Your task to perform on an android device: Open calendar and show me the second week of next month Image 0: 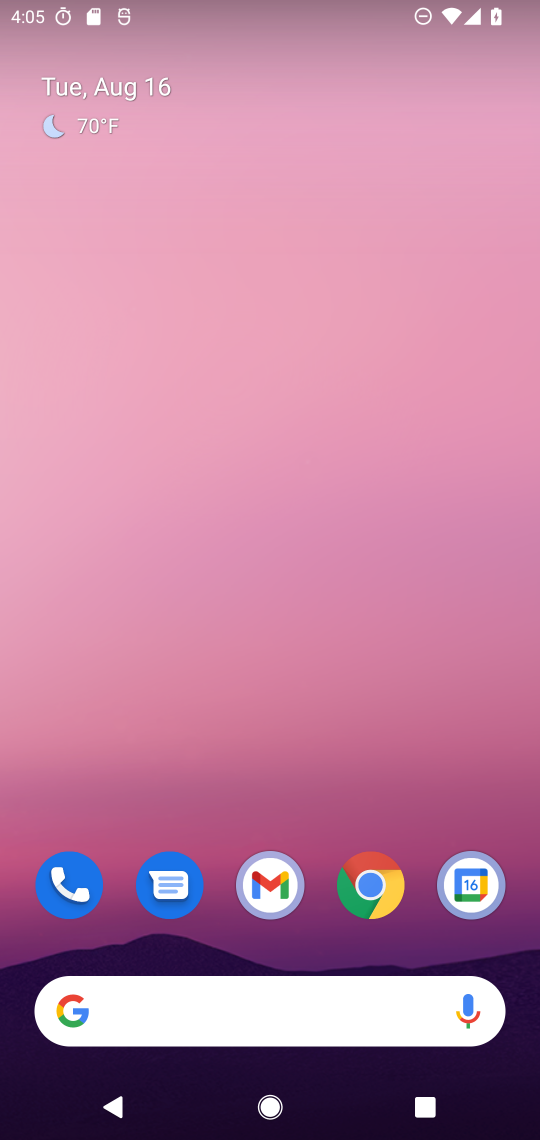
Step 0: drag from (350, 947) to (271, 6)
Your task to perform on an android device: Open calendar and show me the second week of next month Image 1: 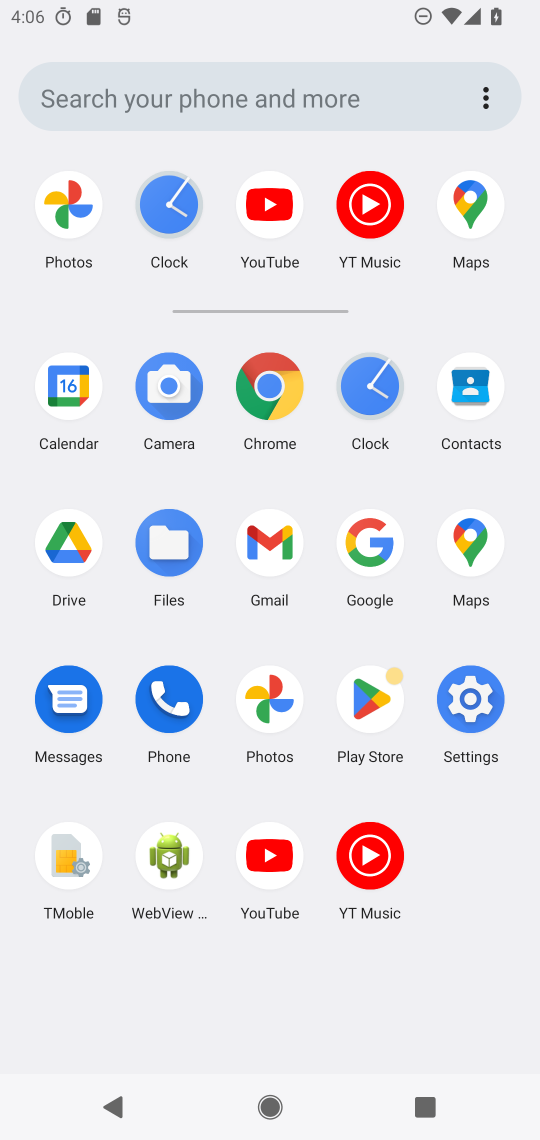
Step 1: click (62, 370)
Your task to perform on an android device: Open calendar and show me the second week of next month Image 2: 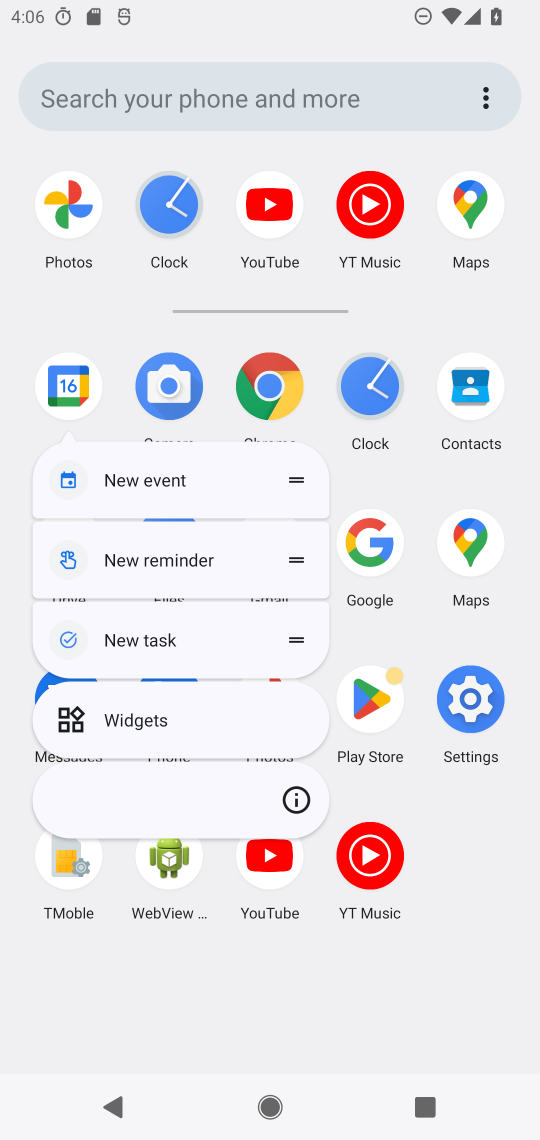
Step 2: click (62, 370)
Your task to perform on an android device: Open calendar and show me the second week of next month Image 3: 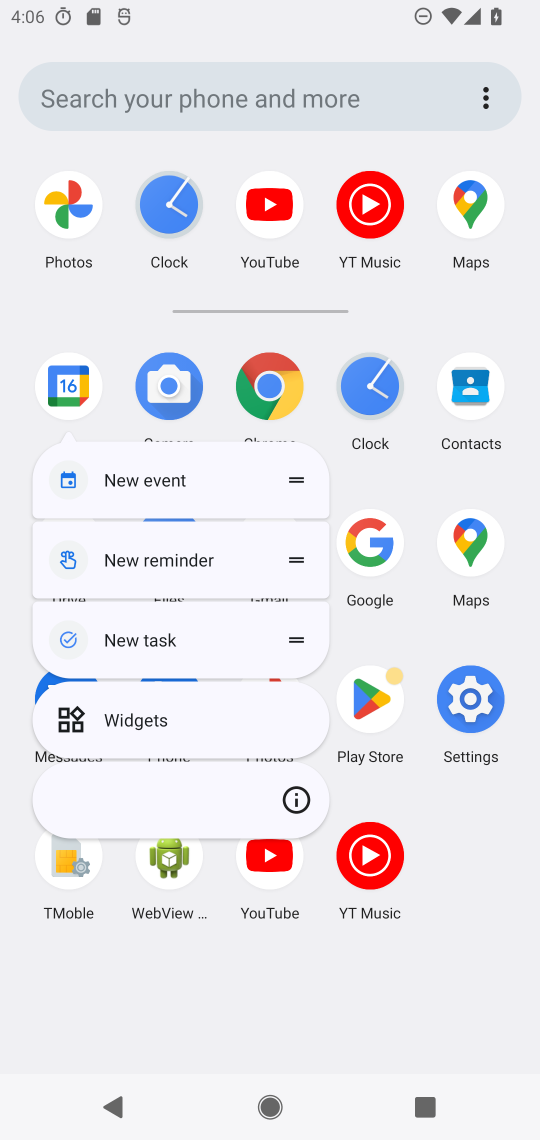
Step 3: click (62, 384)
Your task to perform on an android device: Open calendar and show me the second week of next month Image 4: 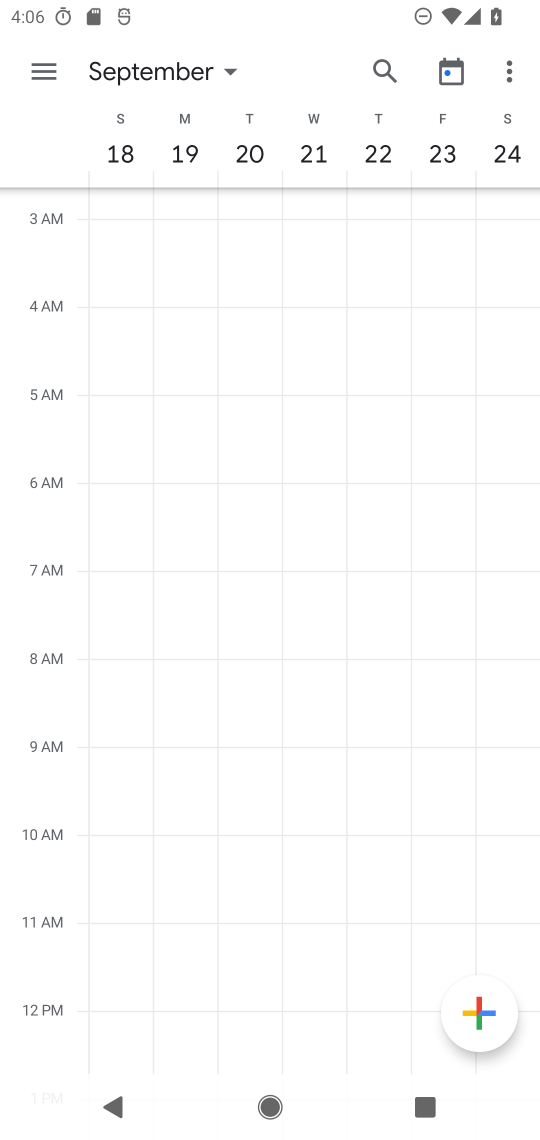
Step 4: task complete